Your task to perform on an android device: Show the shopping cart on bestbuy. Search for razer blackwidow on bestbuy, select the first entry, add it to the cart, then select checkout. Image 0: 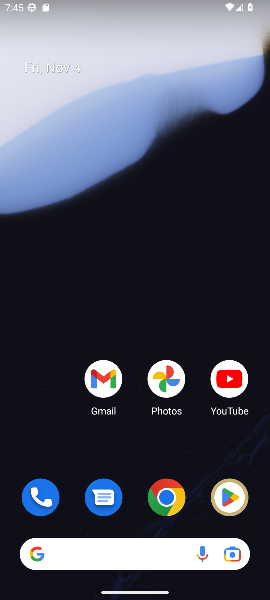
Step 0: click (166, 500)
Your task to perform on an android device: Show the shopping cart on bestbuy. Search for razer blackwidow on bestbuy, select the first entry, add it to the cart, then select checkout. Image 1: 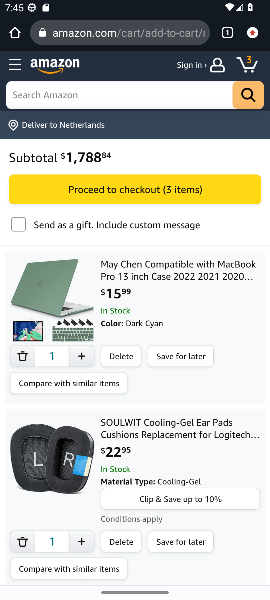
Step 1: click (101, 42)
Your task to perform on an android device: Show the shopping cart on bestbuy. Search for razer blackwidow on bestbuy, select the first entry, add it to the cart, then select checkout. Image 2: 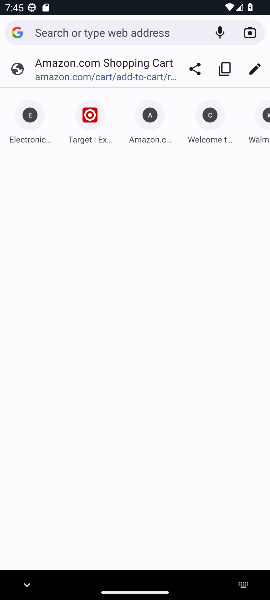
Step 2: type "bestbuy.com"
Your task to perform on an android device: Show the shopping cart on bestbuy. Search for razer blackwidow on bestbuy, select the first entry, add it to the cart, then select checkout. Image 3: 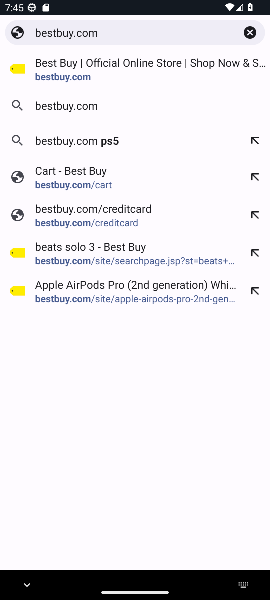
Step 3: click (68, 80)
Your task to perform on an android device: Show the shopping cart on bestbuy. Search for razer blackwidow on bestbuy, select the first entry, add it to the cart, then select checkout. Image 4: 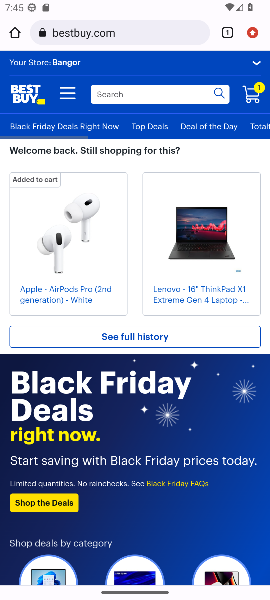
Step 4: click (256, 93)
Your task to perform on an android device: Show the shopping cart on bestbuy. Search for razer blackwidow on bestbuy, select the first entry, add it to the cart, then select checkout. Image 5: 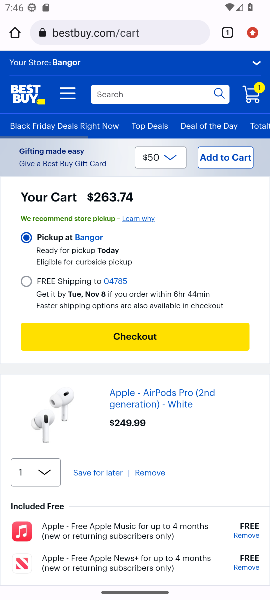
Step 5: click (119, 92)
Your task to perform on an android device: Show the shopping cart on bestbuy. Search for razer blackwidow on bestbuy, select the first entry, add it to the cart, then select checkout. Image 6: 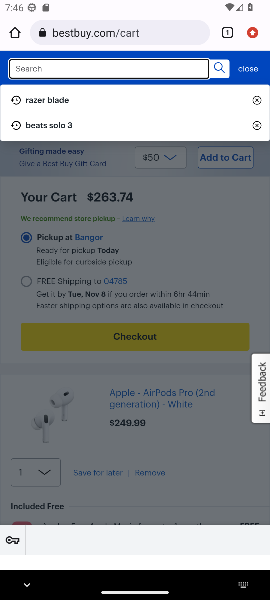
Step 6: type "razer blackwidow"
Your task to perform on an android device: Show the shopping cart on bestbuy. Search for razer blackwidow on bestbuy, select the first entry, add it to the cart, then select checkout. Image 7: 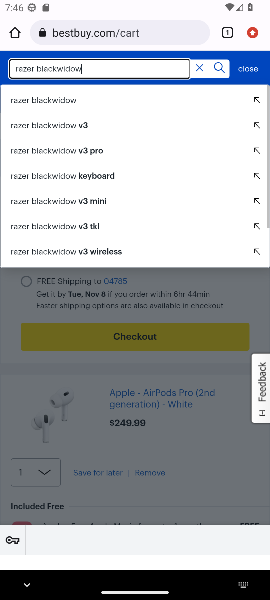
Step 7: click (43, 103)
Your task to perform on an android device: Show the shopping cart on bestbuy. Search for razer blackwidow on bestbuy, select the first entry, add it to the cart, then select checkout. Image 8: 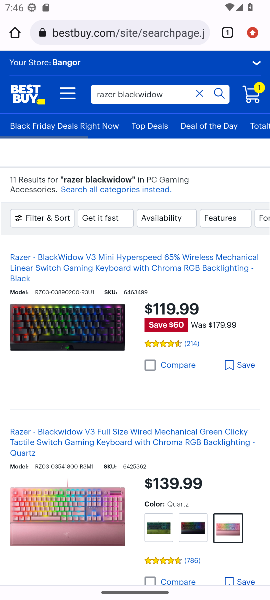
Step 8: click (97, 337)
Your task to perform on an android device: Show the shopping cart on bestbuy. Search for razer blackwidow on bestbuy, select the first entry, add it to the cart, then select checkout. Image 9: 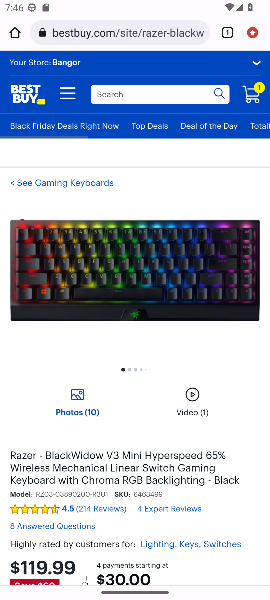
Step 9: drag from (207, 435) to (178, 170)
Your task to perform on an android device: Show the shopping cart on bestbuy. Search for razer blackwidow on bestbuy, select the first entry, add it to the cart, then select checkout. Image 10: 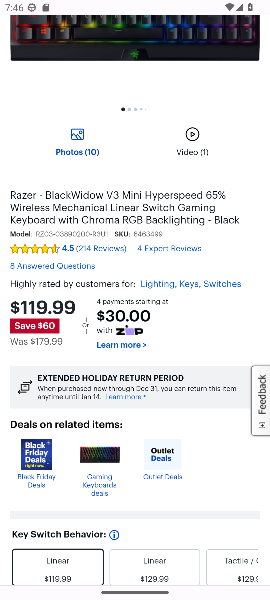
Step 10: drag from (147, 492) to (139, 266)
Your task to perform on an android device: Show the shopping cart on bestbuy. Search for razer blackwidow on bestbuy, select the first entry, add it to the cart, then select checkout. Image 11: 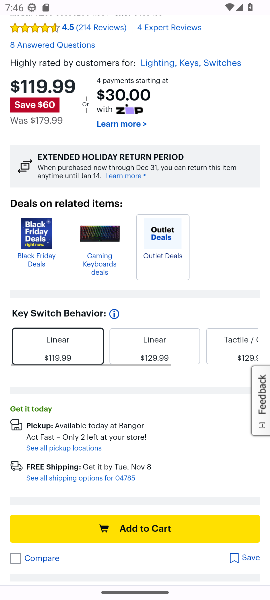
Step 11: click (137, 528)
Your task to perform on an android device: Show the shopping cart on bestbuy. Search for razer blackwidow on bestbuy, select the first entry, add it to the cart, then select checkout. Image 12: 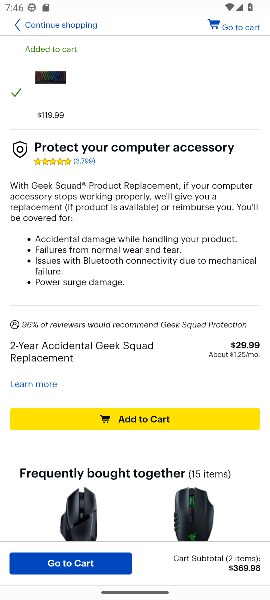
Step 12: drag from (99, 248) to (117, 435)
Your task to perform on an android device: Show the shopping cart on bestbuy. Search for razer blackwidow on bestbuy, select the first entry, add it to the cart, then select checkout. Image 13: 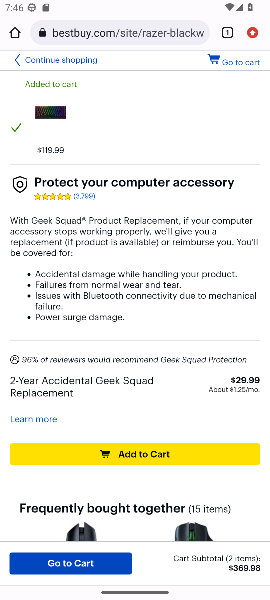
Step 13: drag from (106, 196) to (109, 259)
Your task to perform on an android device: Show the shopping cart on bestbuy. Search for razer blackwidow on bestbuy, select the first entry, add it to the cart, then select checkout. Image 14: 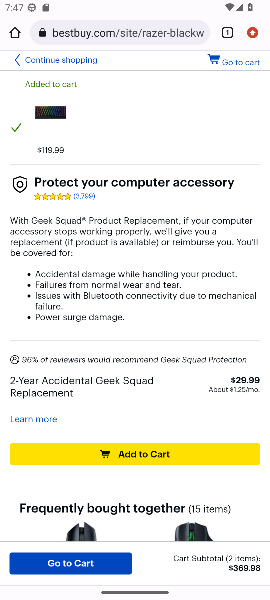
Step 14: click (220, 62)
Your task to perform on an android device: Show the shopping cart on bestbuy. Search for razer blackwidow on bestbuy, select the first entry, add it to the cart, then select checkout. Image 15: 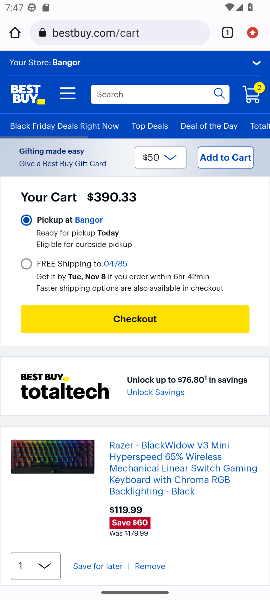
Step 15: click (143, 325)
Your task to perform on an android device: Show the shopping cart on bestbuy. Search for razer blackwidow on bestbuy, select the first entry, add it to the cart, then select checkout. Image 16: 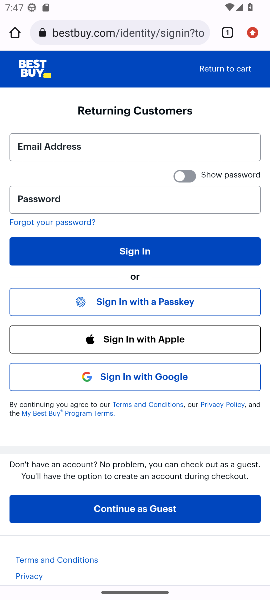
Step 16: task complete